Your task to perform on an android device: Open the map Image 0: 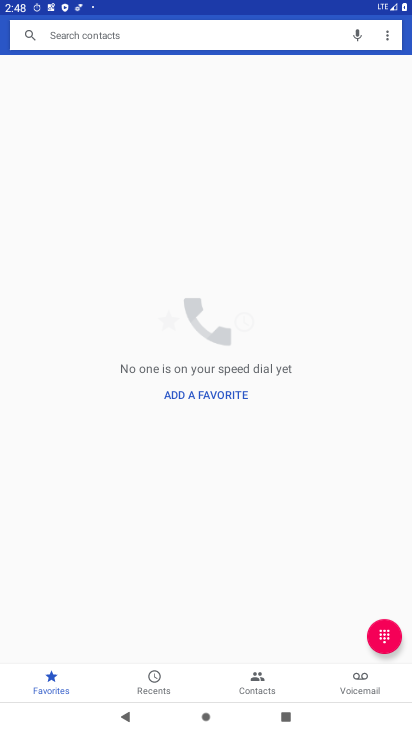
Step 0: press home button
Your task to perform on an android device: Open the map Image 1: 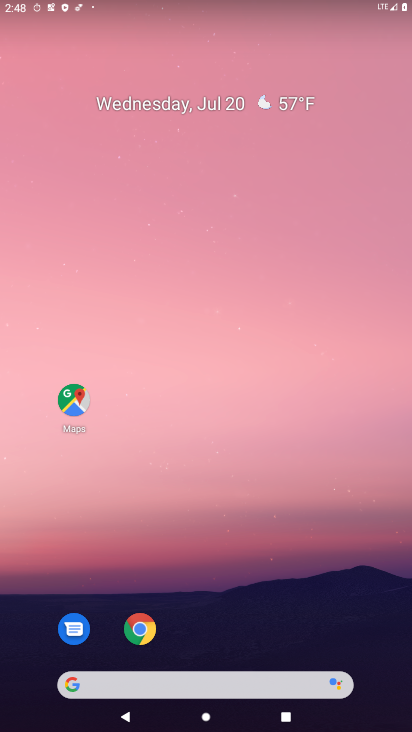
Step 1: click (76, 405)
Your task to perform on an android device: Open the map Image 2: 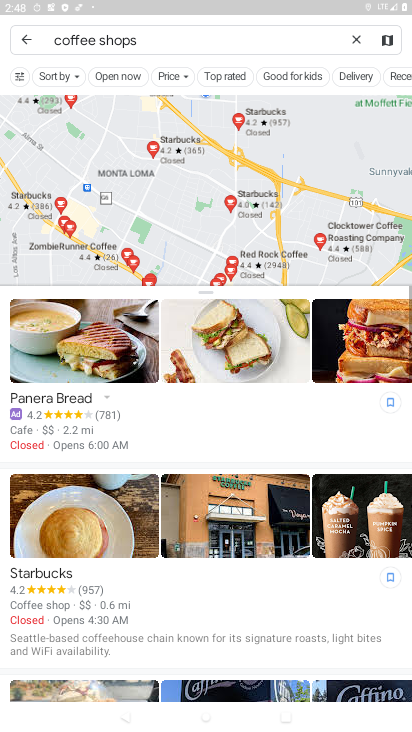
Step 2: task complete